Your task to perform on an android device: turn on wifi Image 0: 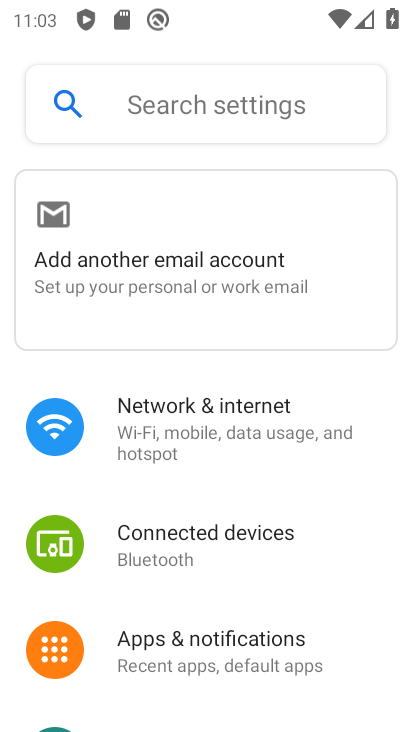
Step 0: click (341, 427)
Your task to perform on an android device: turn on wifi Image 1: 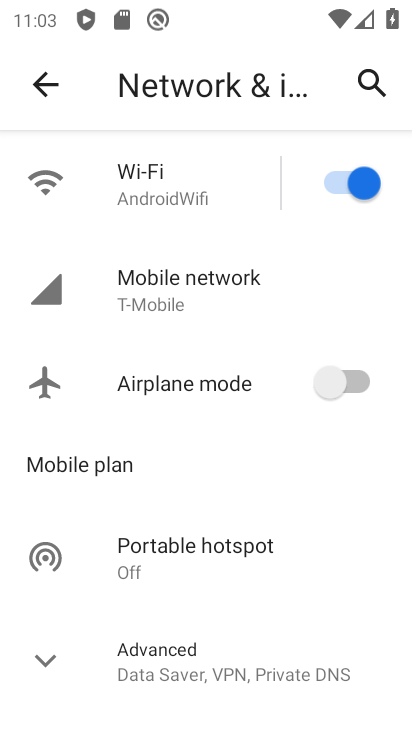
Step 1: task complete